Your task to perform on an android device: change keyboard looks Image 0: 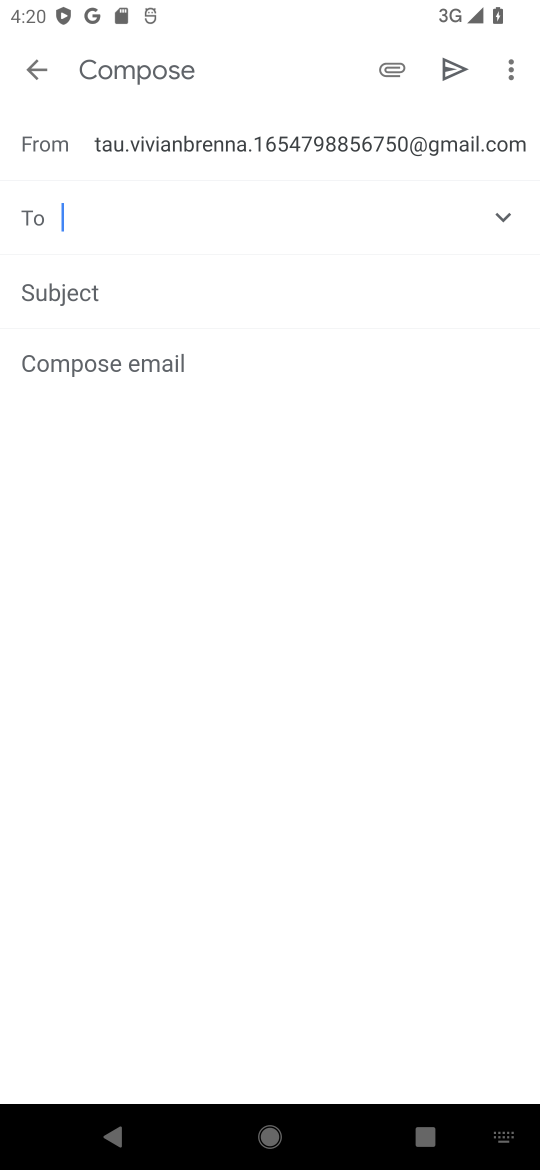
Step 0: press back button
Your task to perform on an android device: change keyboard looks Image 1: 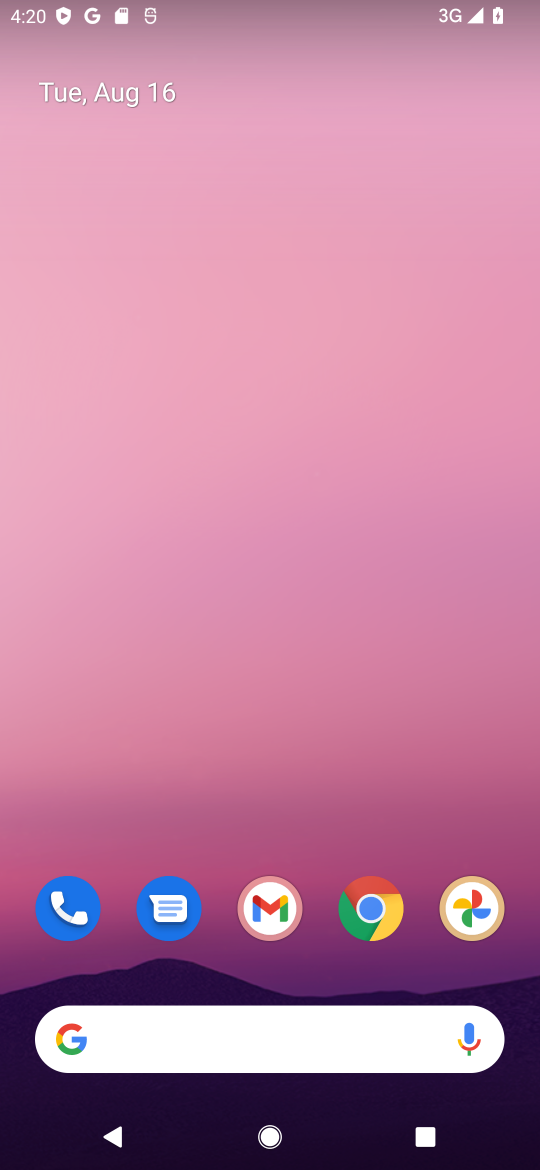
Step 1: drag from (257, 789) to (429, 113)
Your task to perform on an android device: change keyboard looks Image 2: 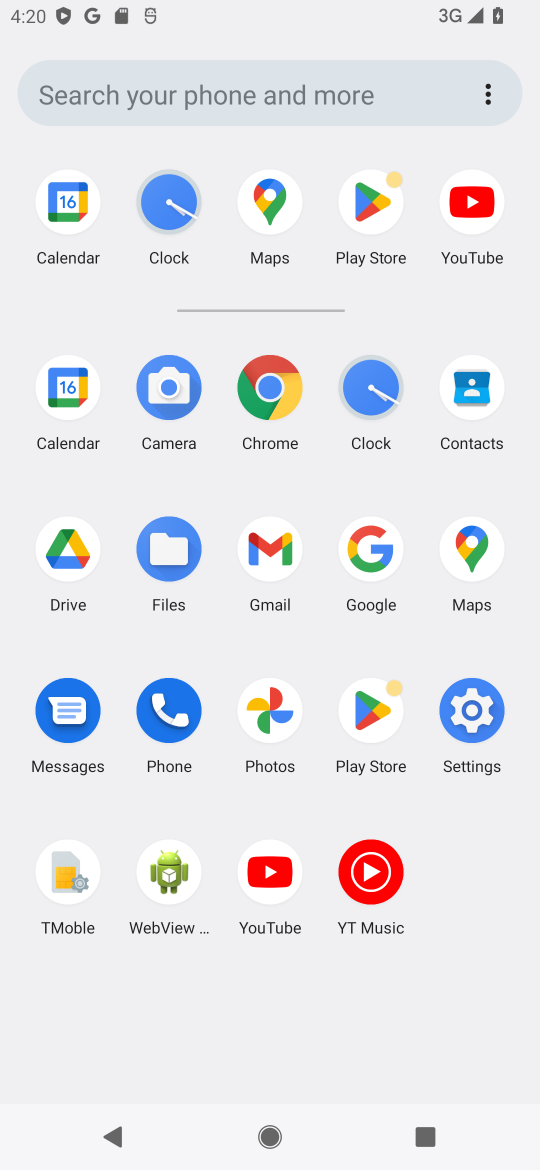
Step 2: click (478, 721)
Your task to perform on an android device: change keyboard looks Image 3: 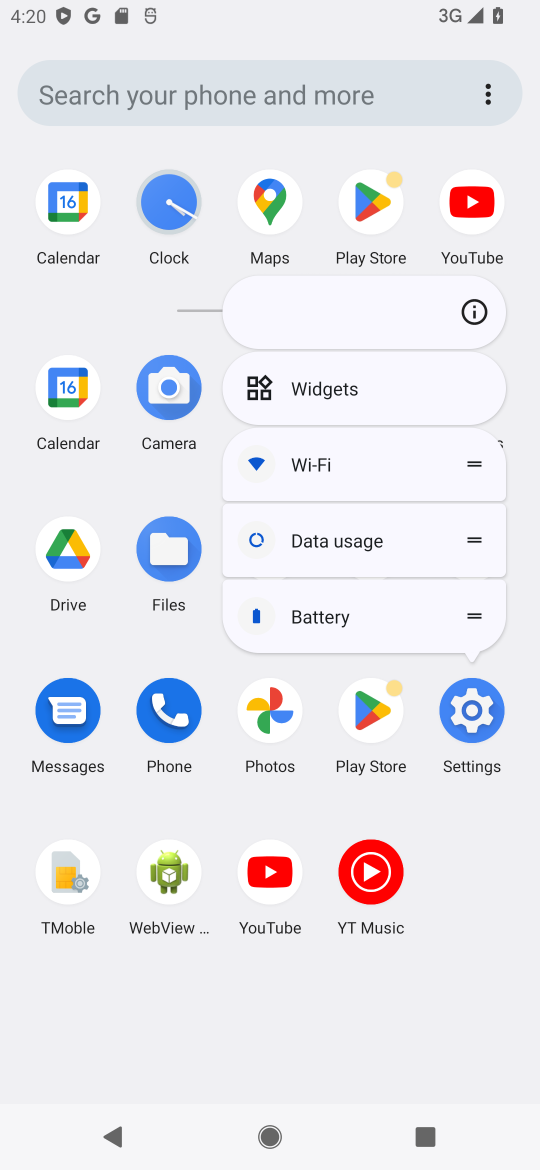
Step 3: click (468, 714)
Your task to perform on an android device: change keyboard looks Image 4: 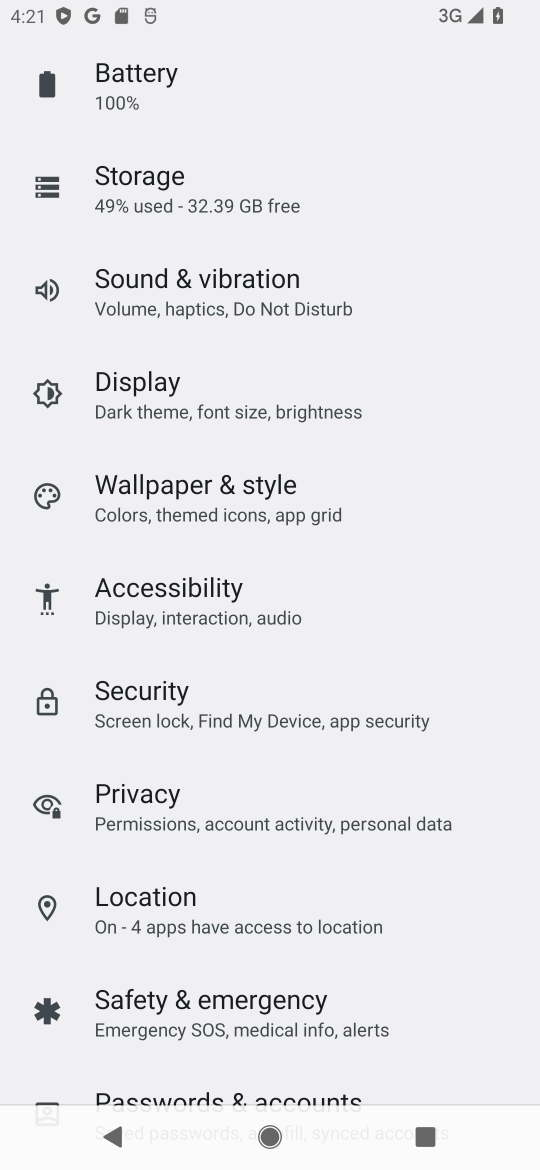
Step 4: drag from (218, 1013) to (377, 113)
Your task to perform on an android device: change keyboard looks Image 5: 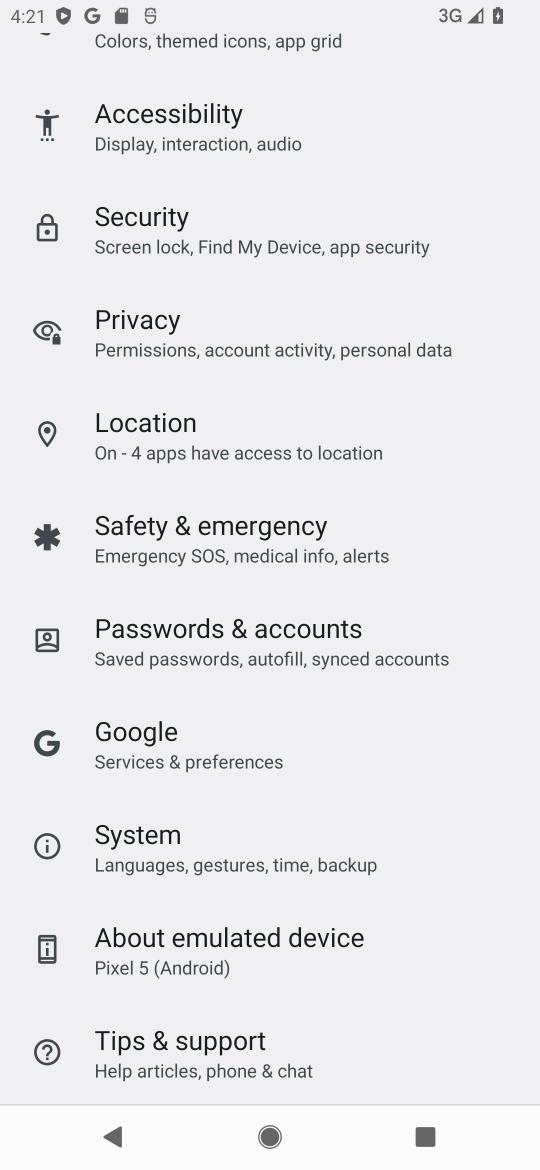
Step 5: click (213, 837)
Your task to perform on an android device: change keyboard looks Image 6: 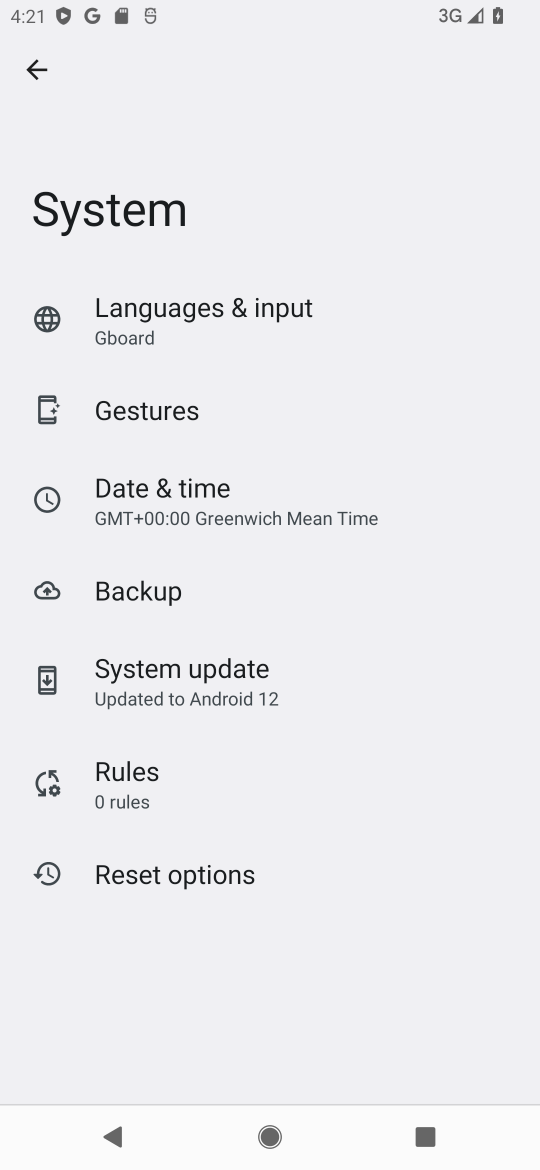
Step 6: click (238, 314)
Your task to perform on an android device: change keyboard looks Image 7: 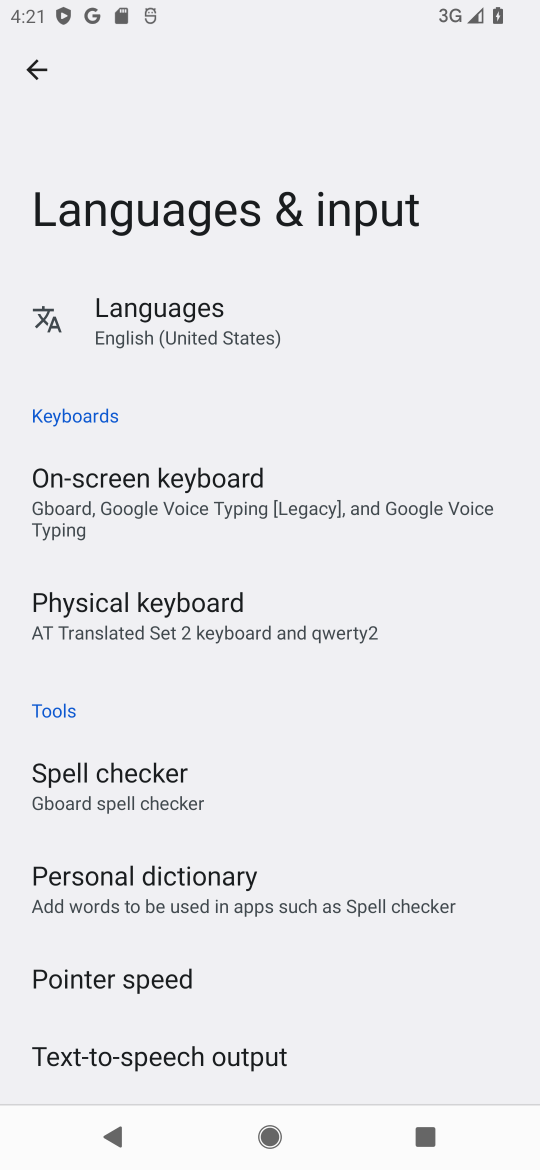
Step 7: click (121, 513)
Your task to perform on an android device: change keyboard looks Image 8: 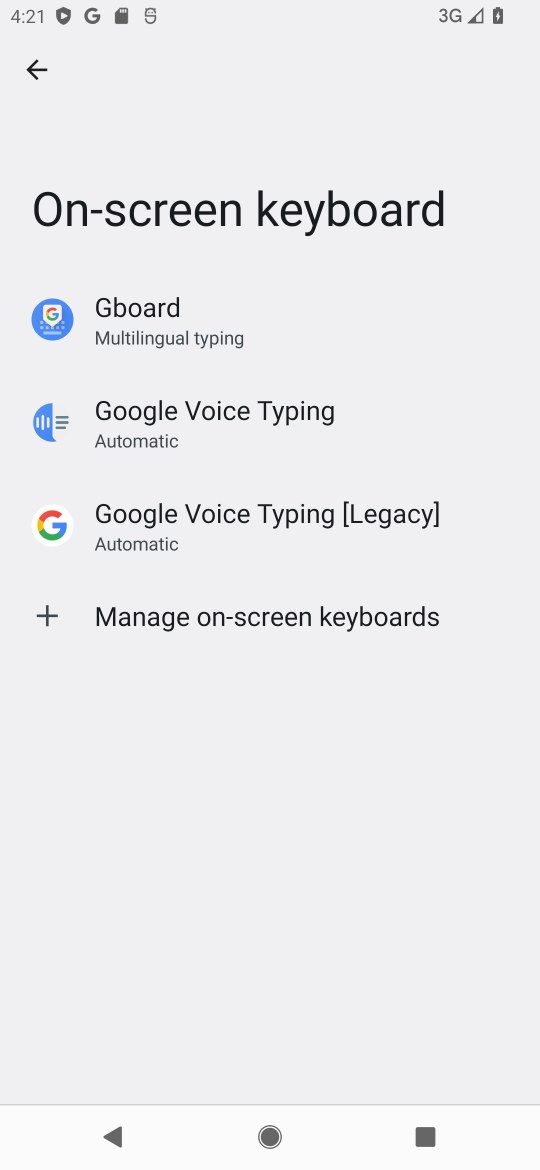
Step 8: click (184, 332)
Your task to perform on an android device: change keyboard looks Image 9: 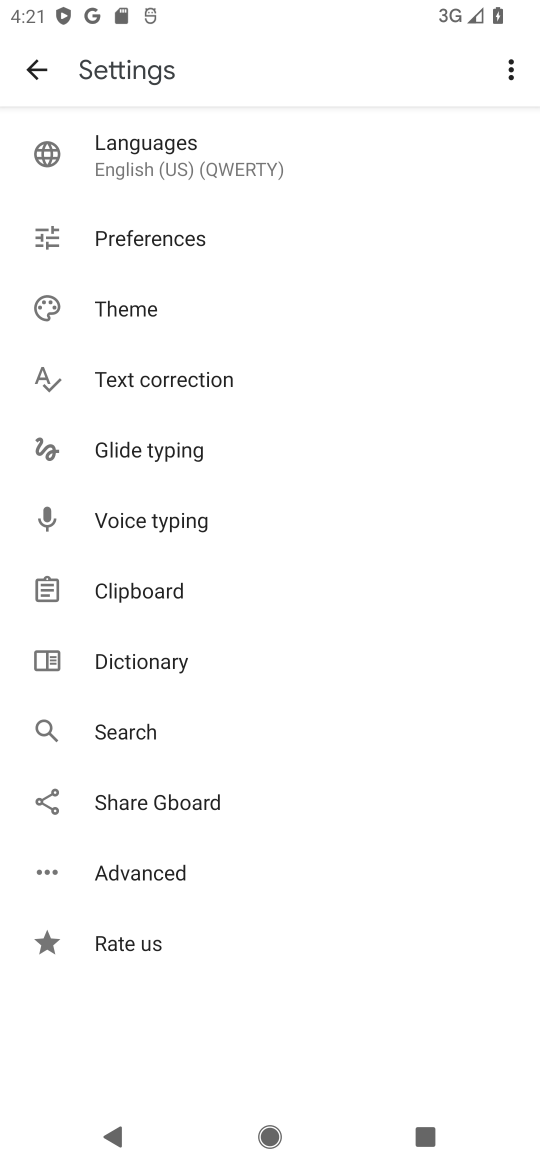
Step 9: click (122, 310)
Your task to perform on an android device: change keyboard looks Image 10: 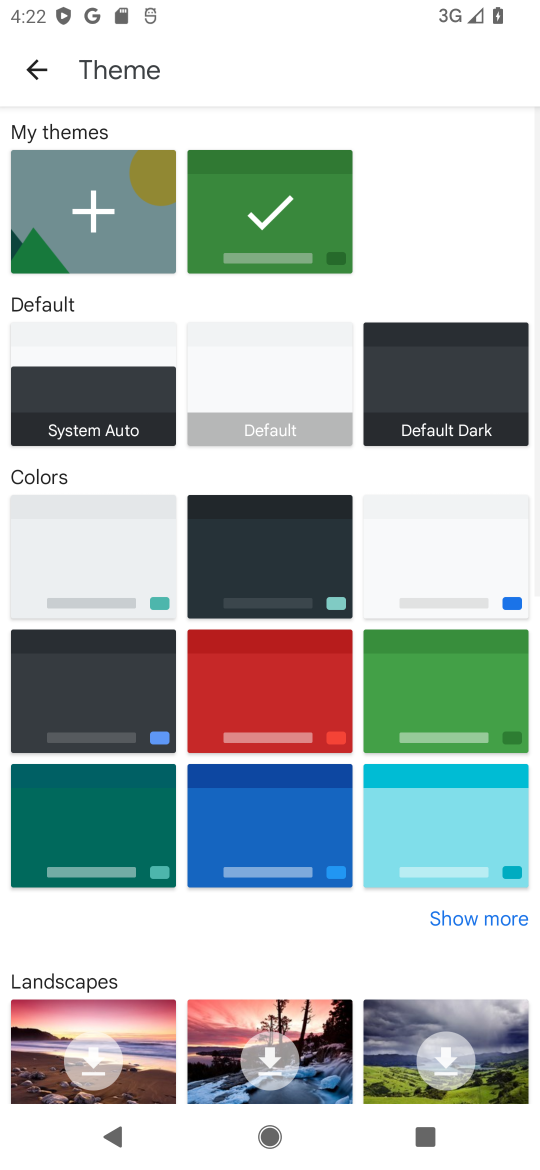
Step 10: click (308, 695)
Your task to perform on an android device: change keyboard looks Image 11: 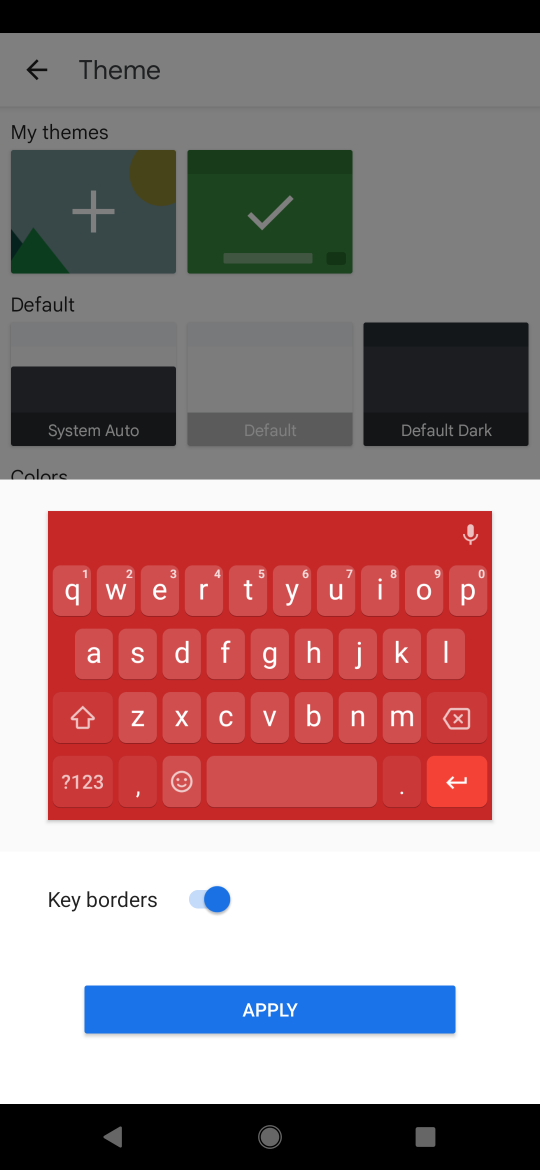
Step 11: click (312, 1000)
Your task to perform on an android device: change keyboard looks Image 12: 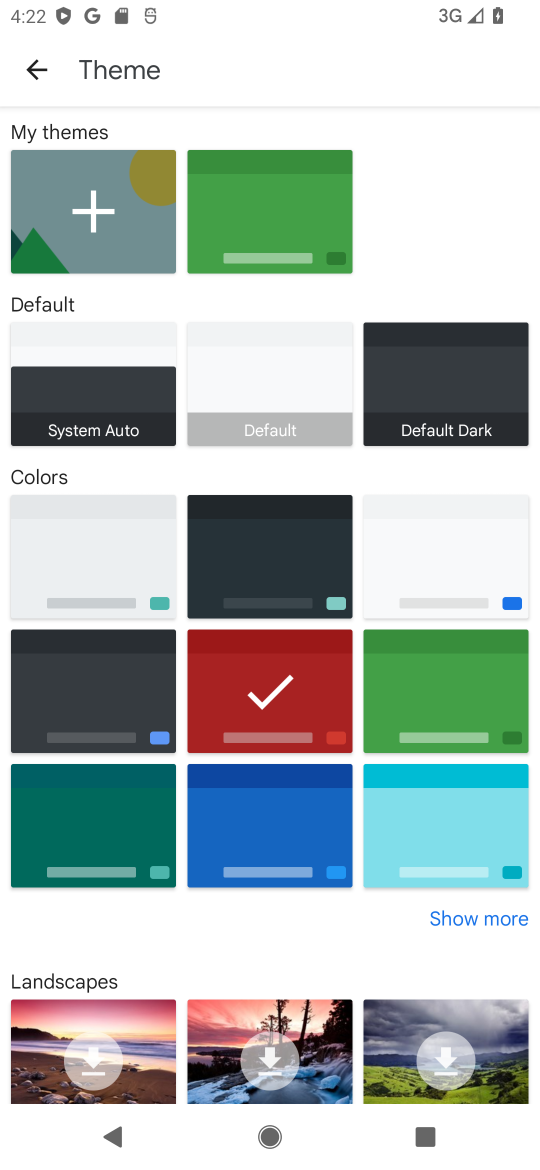
Step 12: task complete